Your task to perform on an android device: Play the last video I watched on Youtube Image 0: 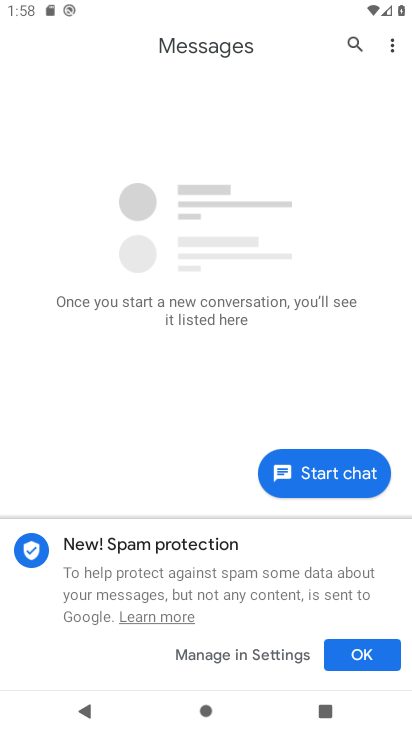
Step 0: press home button
Your task to perform on an android device: Play the last video I watched on Youtube Image 1: 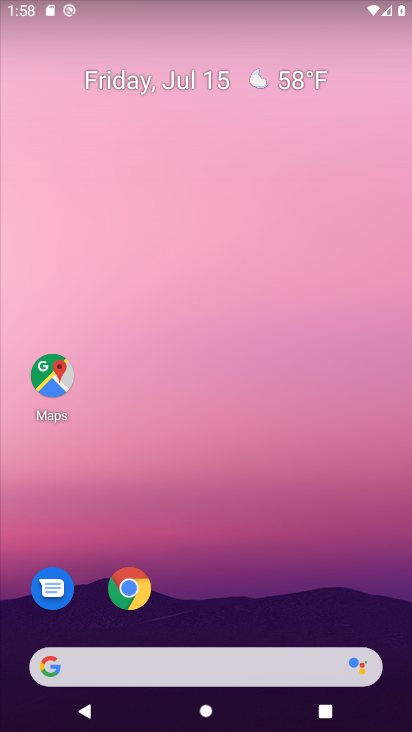
Step 1: drag from (232, 599) to (226, 50)
Your task to perform on an android device: Play the last video I watched on Youtube Image 2: 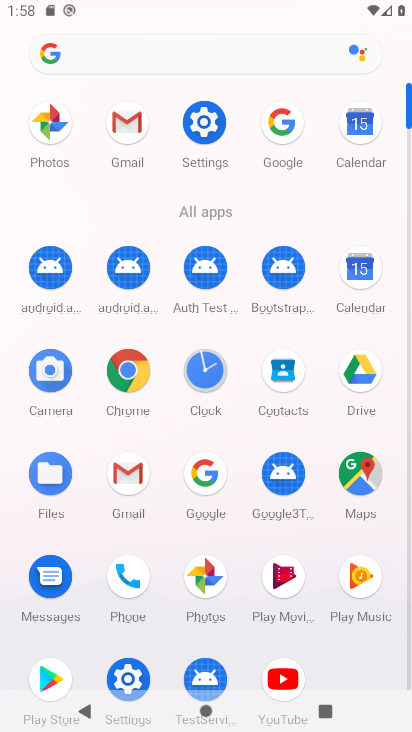
Step 2: click (277, 675)
Your task to perform on an android device: Play the last video I watched on Youtube Image 3: 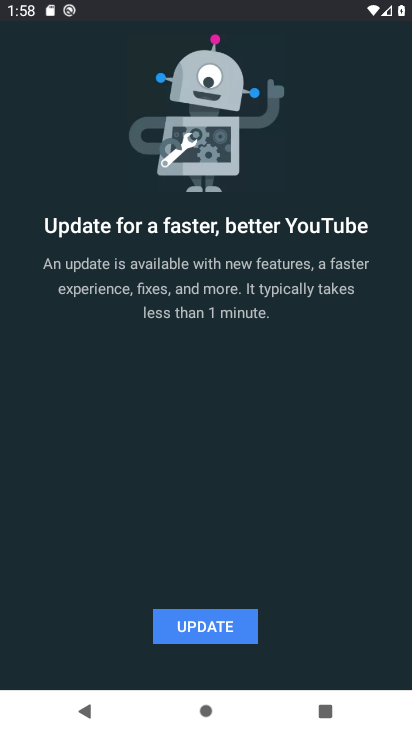
Step 3: click (194, 629)
Your task to perform on an android device: Play the last video I watched on Youtube Image 4: 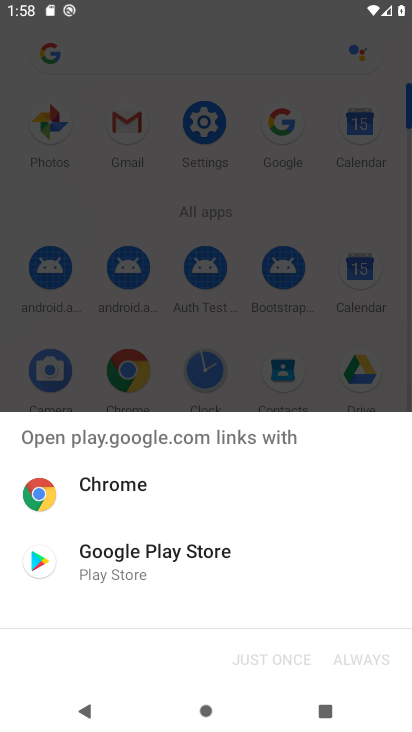
Step 4: click (132, 563)
Your task to perform on an android device: Play the last video I watched on Youtube Image 5: 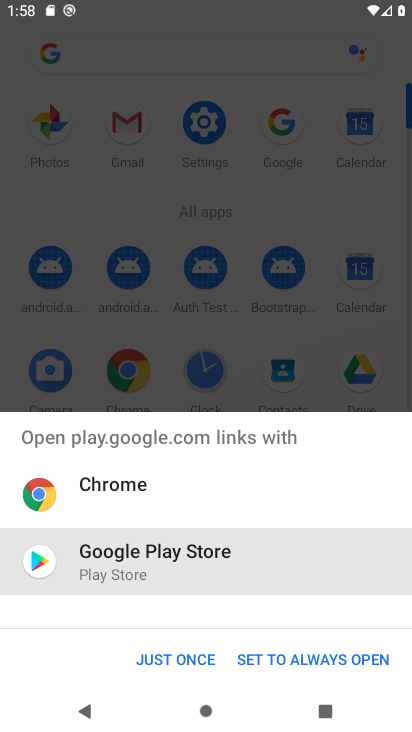
Step 5: click (188, 663)
Your task to perform on an android device: Play the last video I watched on Youtube Image 6: 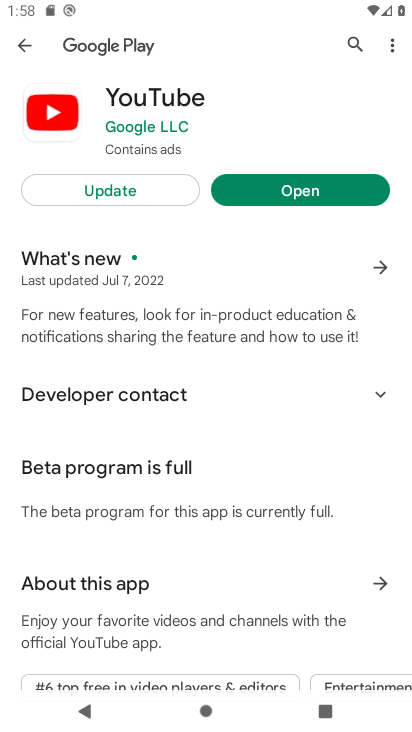
Step 6: click (103, 191)
Your task to perform on an android device: Play the last video I watched on Youtube Image 7: 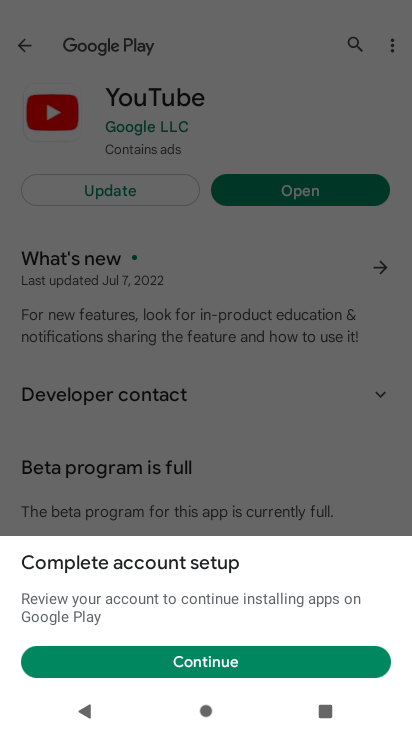
Step 7: click (232, 655)
Your task to perform on an android device: Play the last video I watched on Youtube Image 8: 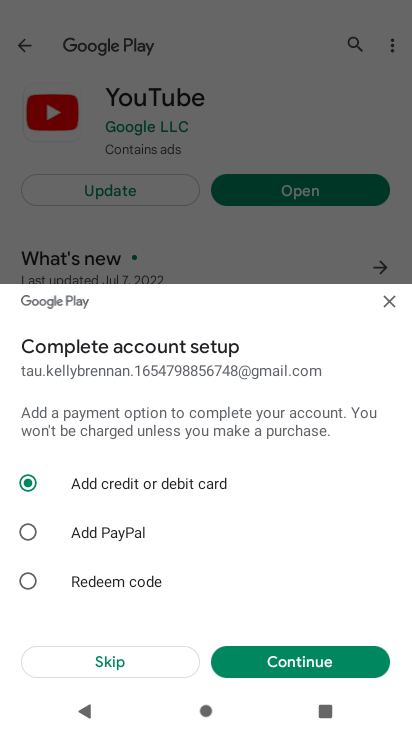
Step 8: click (127, 668)
Your task to perform on an android device: Play the last video I watched on Youtube Image 9: 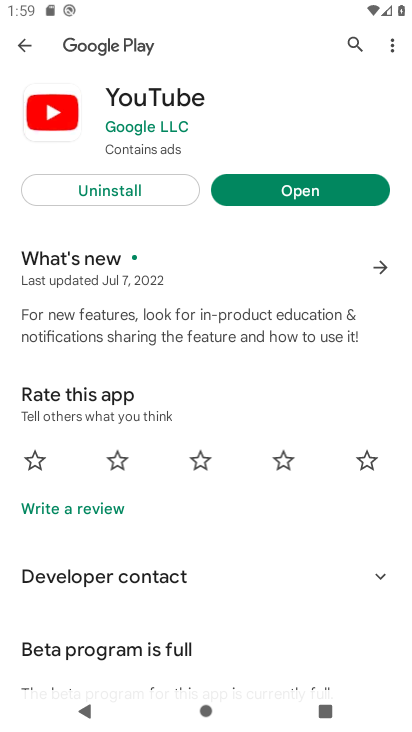
Step 9: click (298, 185)
Your task to perform on an android device: Play the last video I watched on Youtube Image 10: 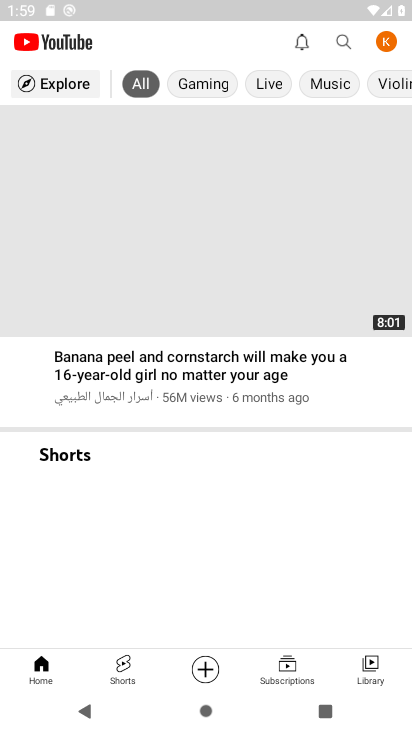
Step 10: click (352, 673)
Your task to perform on an android device: Play the last video I watched on Youtube Image 11: 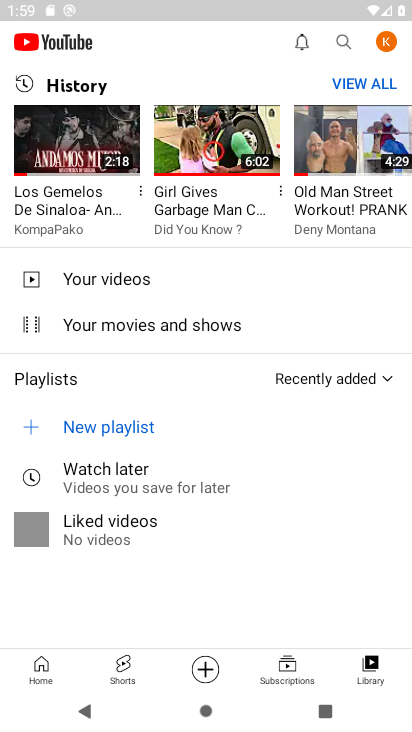
Step 11: click (42, 139)
Your task to perform on an android device: Play the last video I watched on Youtube Image 12: 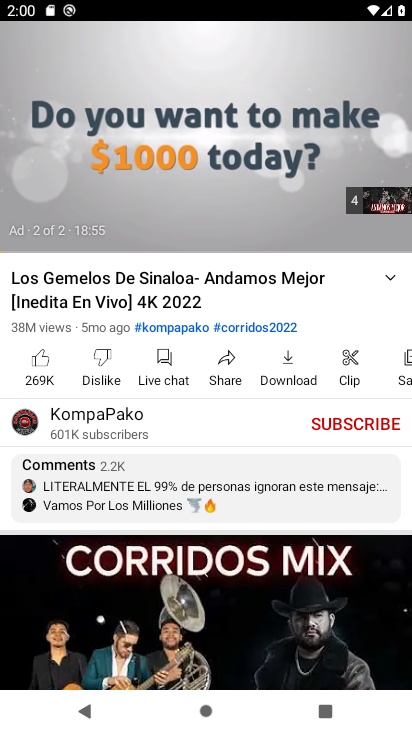
Step 12: task complete